Your task to perform on an android device: open chrome and create a bookmark for the current page Image 0: 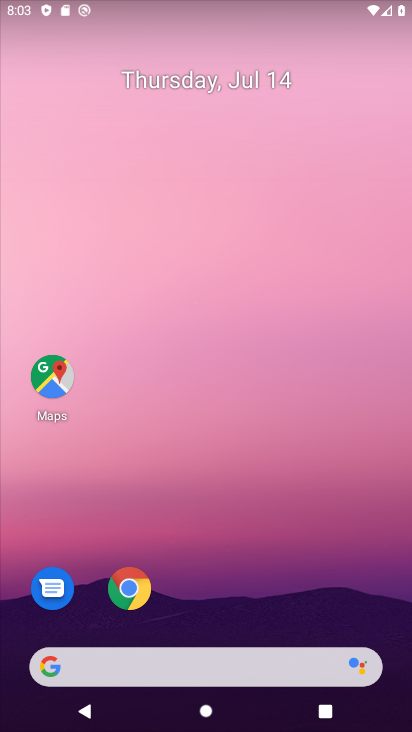
Step 0: click (130, 595)
Your task to perform on an android device: open chrome and create a bookmark for the current page Image 1: 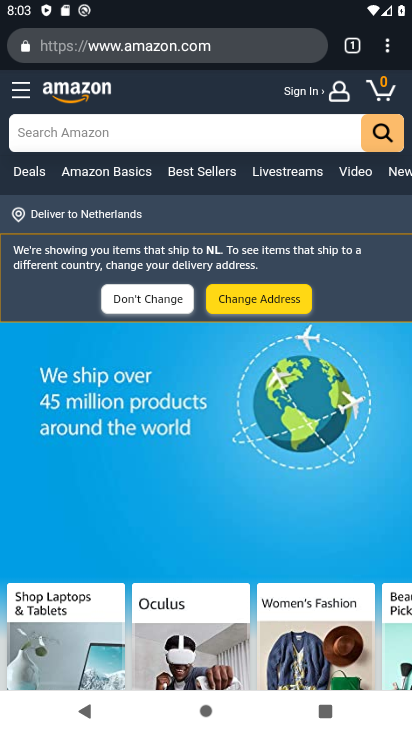
Step 1: click (382, 45)
Your task to perform on an android device: open chrome and create a bookmark for the current page Image 2: 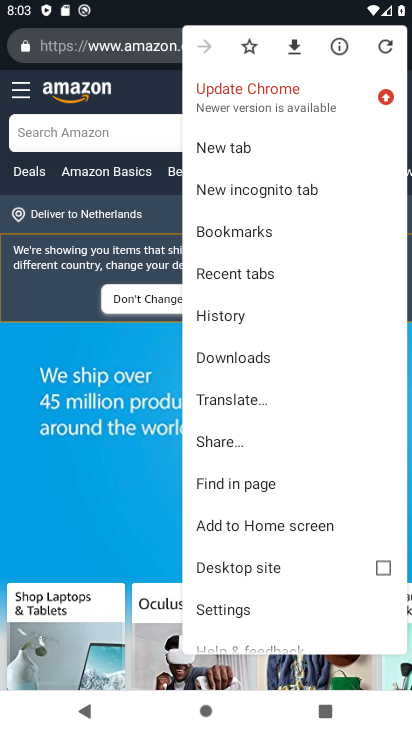
Step 2: click (250, 41)
Your task to perform on an android device: open chrome and create a bookmark for the current page Image 3: 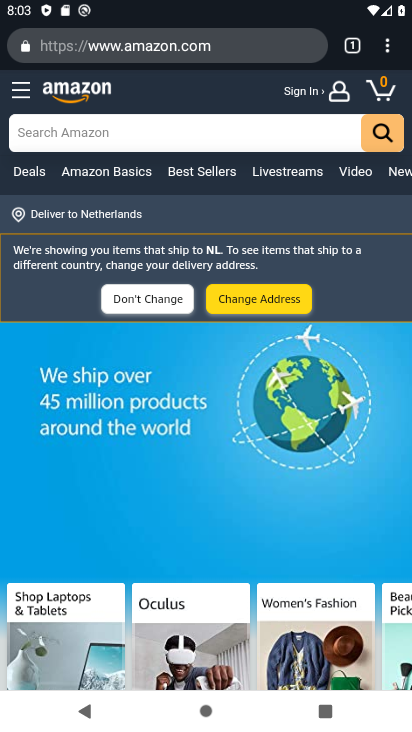
Step 3: task complete